Your task to perform on an android device: Turn on the flashlight Image 0: 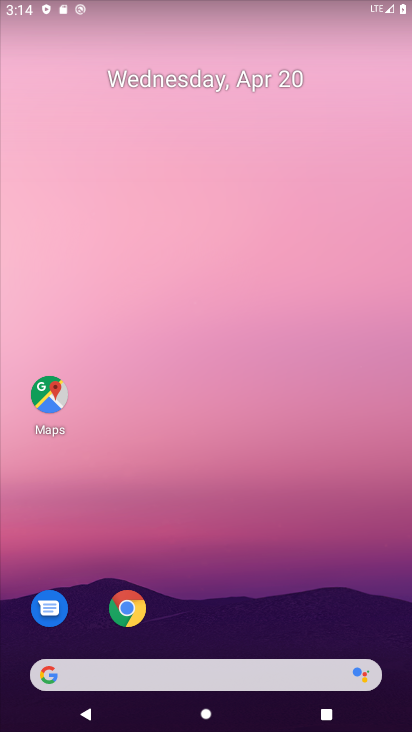
Step 0: drag from (227, 658) to (202, 65)
Your task to perform on an android device: Turn on the flashlight Image 1: 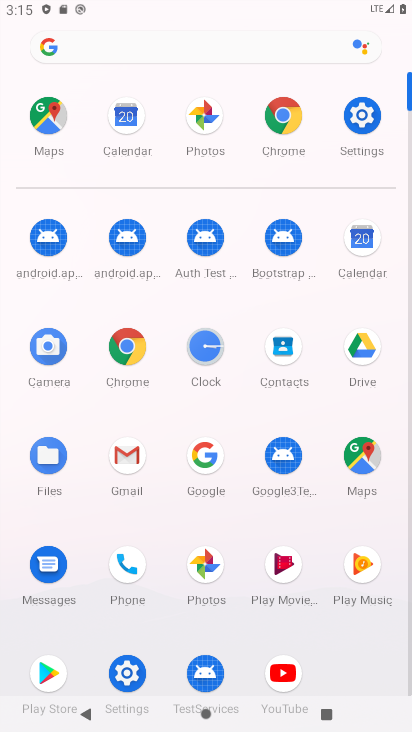
Step 1: click (134, 662)
Your task to perform on an android device: Turn on the flashlight Image 2: 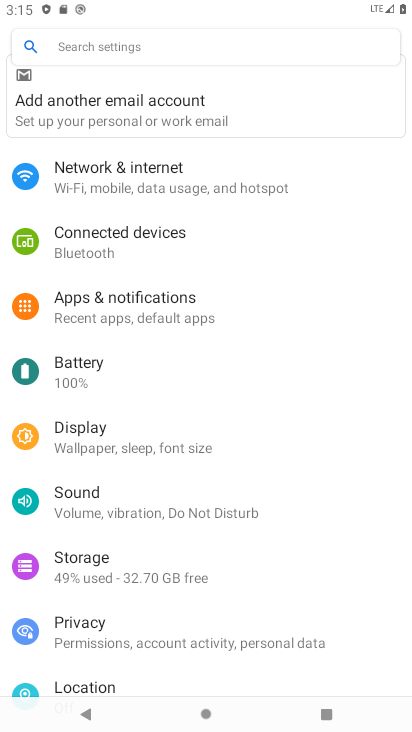
Step 2: task complete